Your task to perform on an android device: Go to Android settings Image 0: 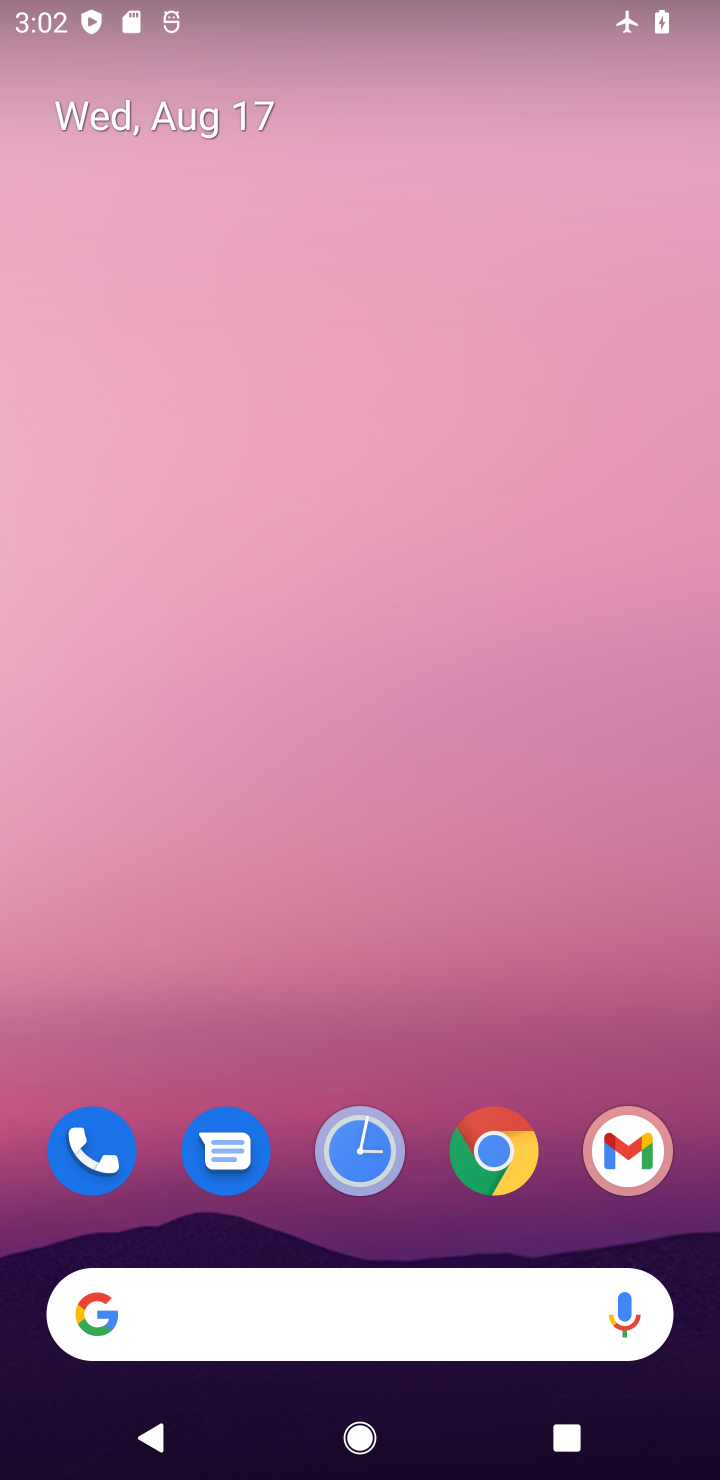
Step 0: drag from (418, 766) to (402, 261)
Your task to perform on an android device: Go to Android settings Image 1: 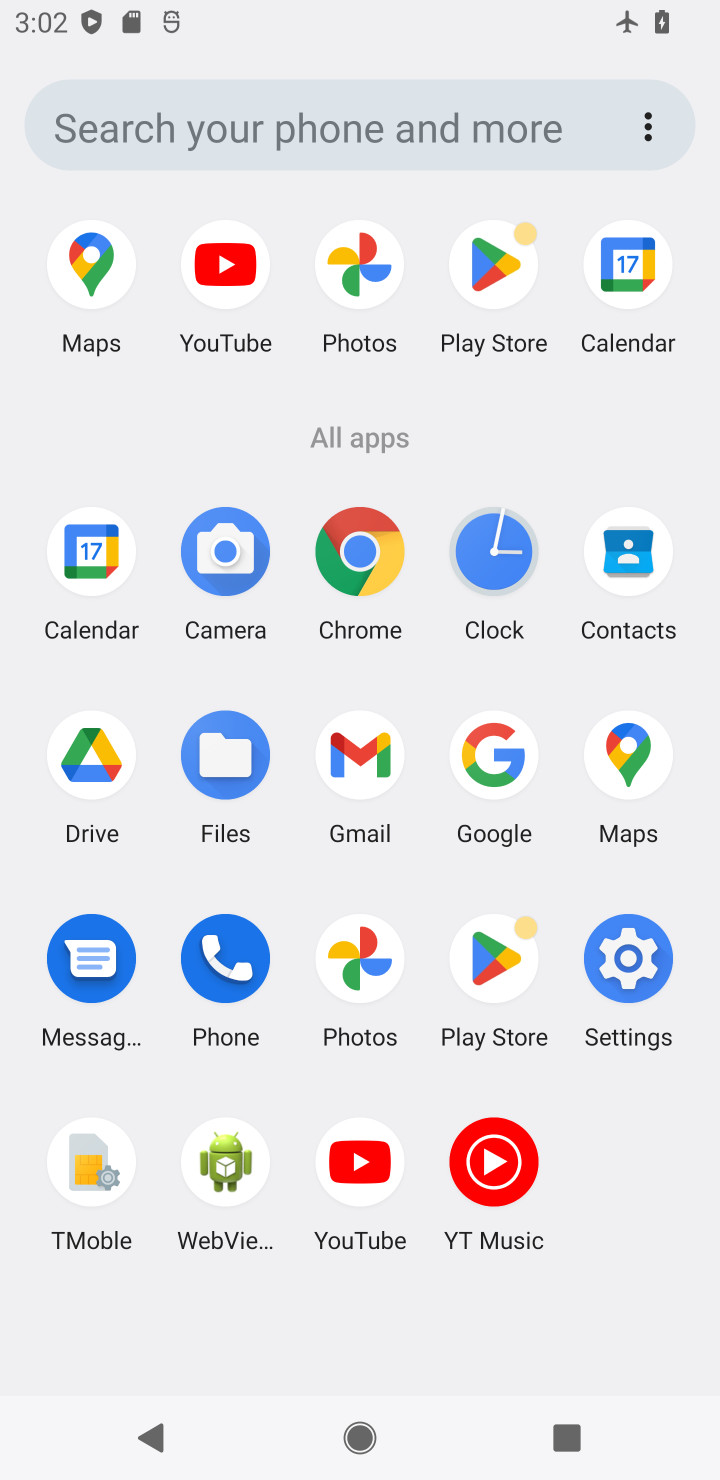
Step 1: click (619, 952)
Your task to perform on an android device: Go to Android settings Image 2: 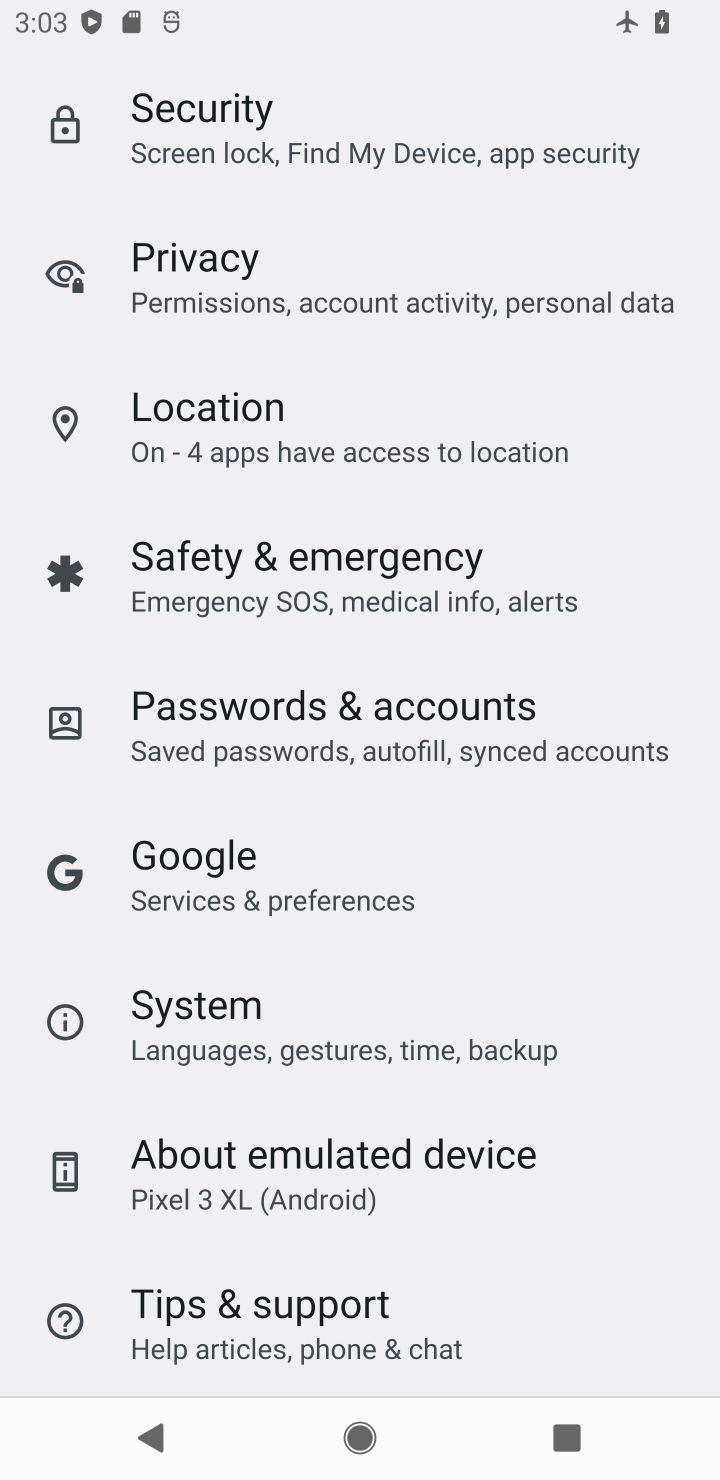
Step 2: task complete